Your task to perform on an android device: stop showing notifications on the lock screen Image 0: 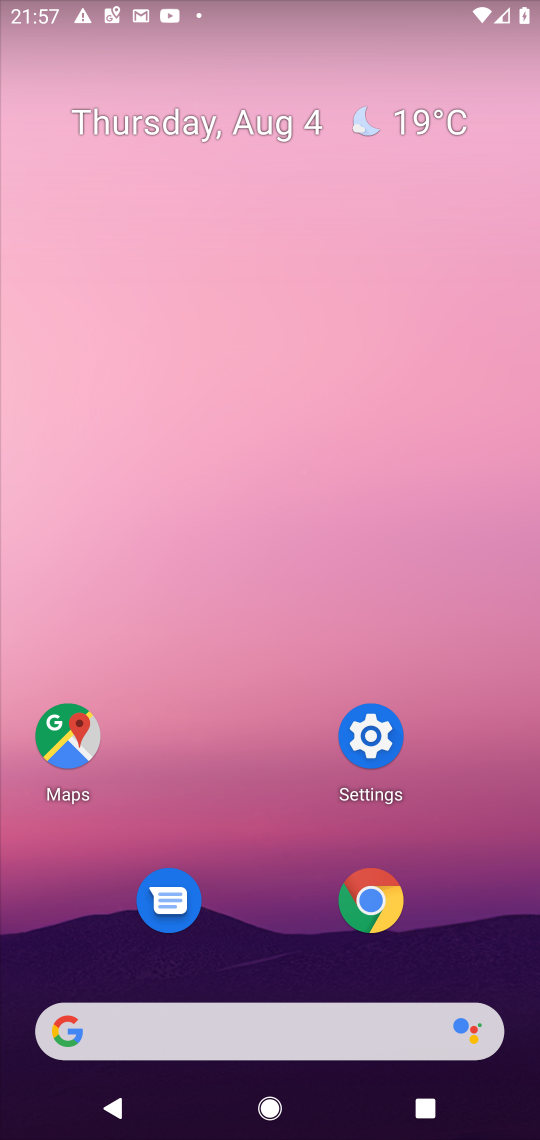
Step 0: press home button
Your task to perform on an android device: stop showing notifications on the lock screen Image 1: 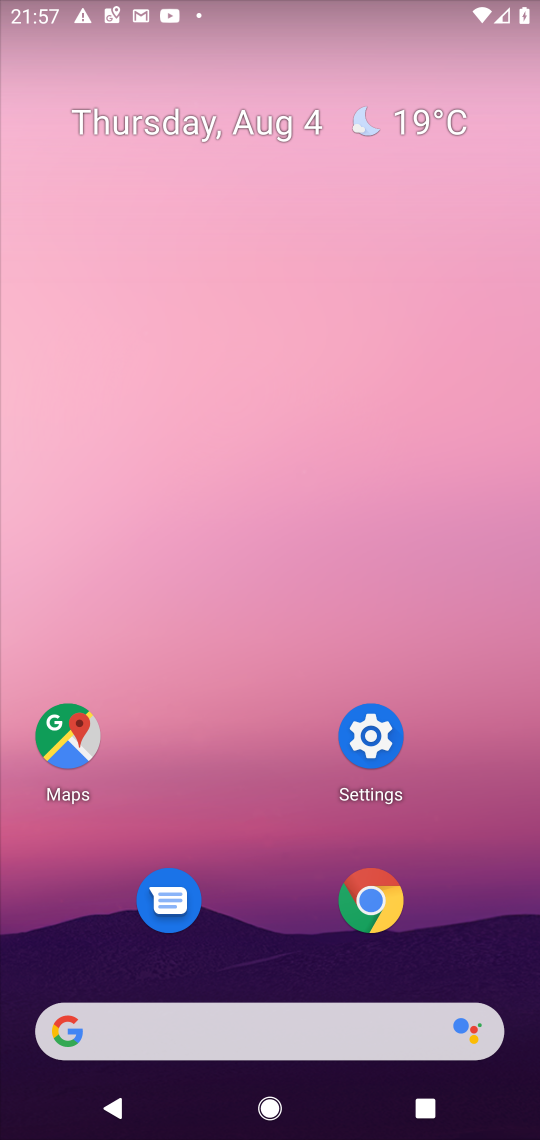
Step 1: click (369, 736)
Your task to perform on an android device: stop showing notifications on the lock screen Image 2: 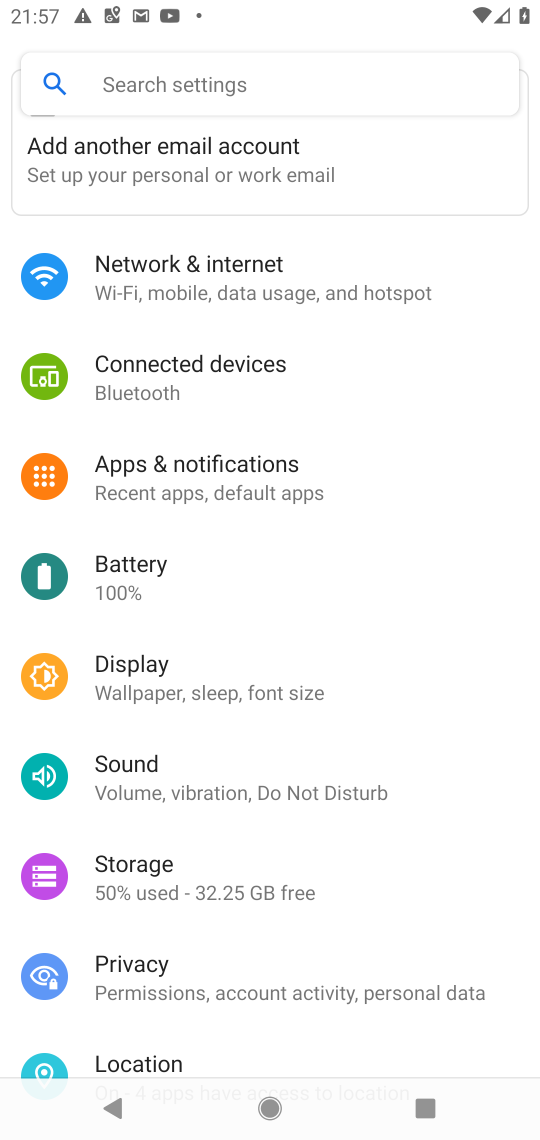
Step 2: click (238, 461)
Your task to perform on an android device: stop showing notifications on the lock screen Image 3: 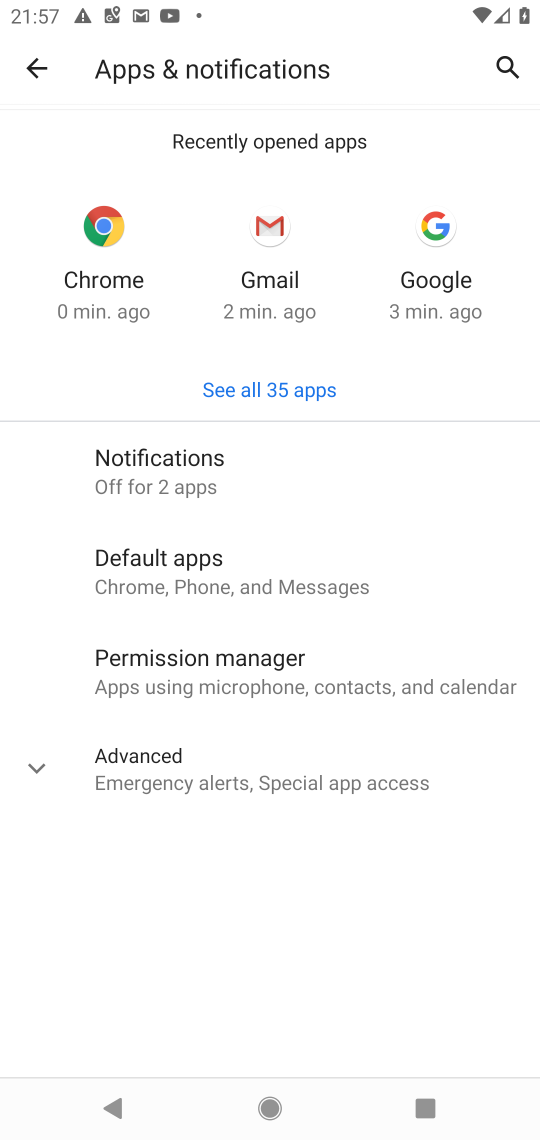
Step 3: click (187, 463)
Your task to perform on an android device: stop showing notifications on the lock screen Image 4: 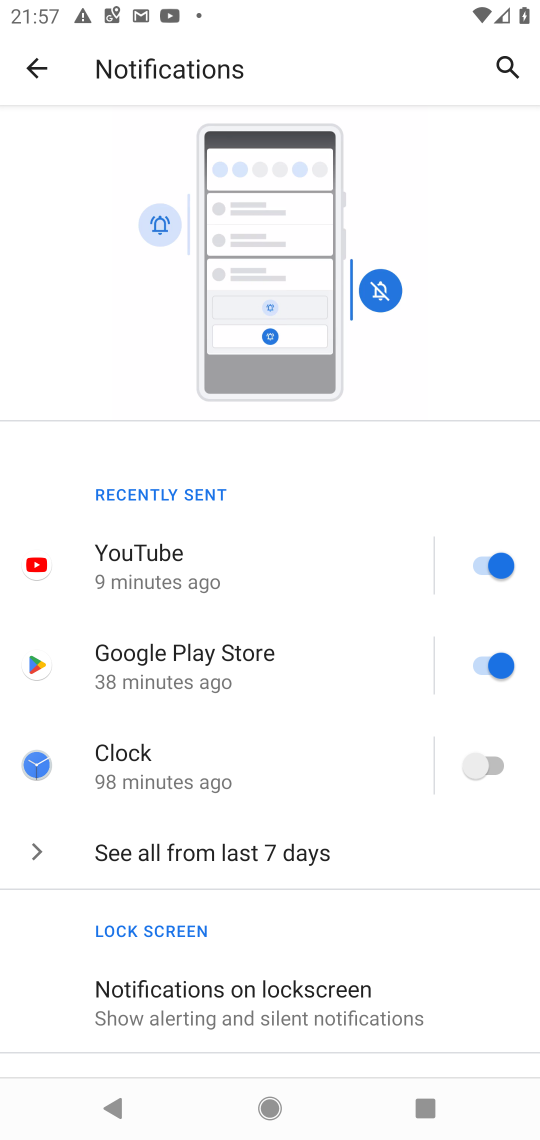
Step 4: drag from (242, 955) to (349, 206)
Your task to perform on an android device: stop showing notifications on the lock screen Image 5: 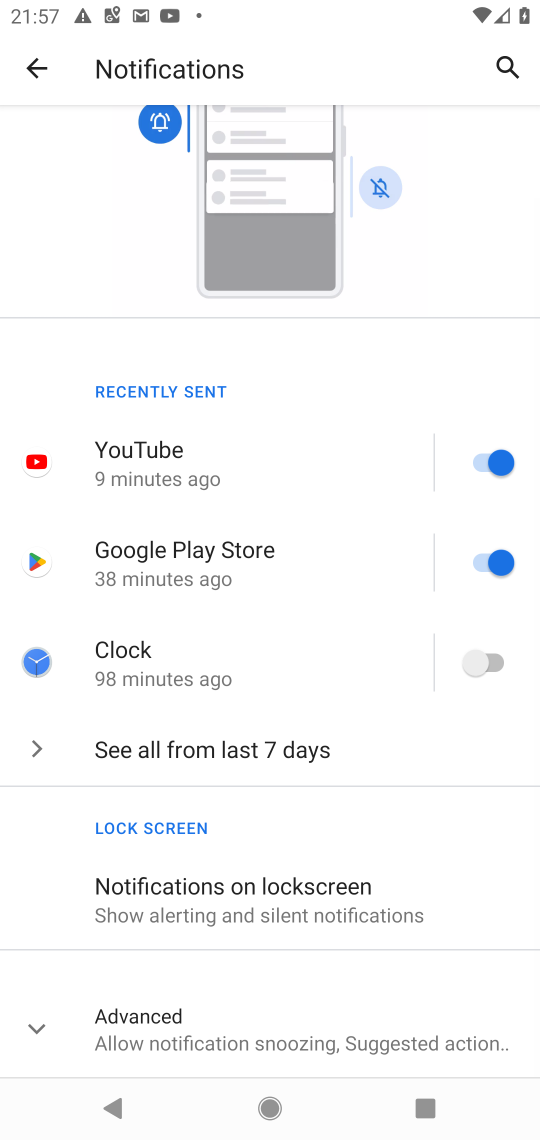
Step 5: click (232, 912)
Your task to perform on an android device: stop showing notifications on the lock screen Image 6: 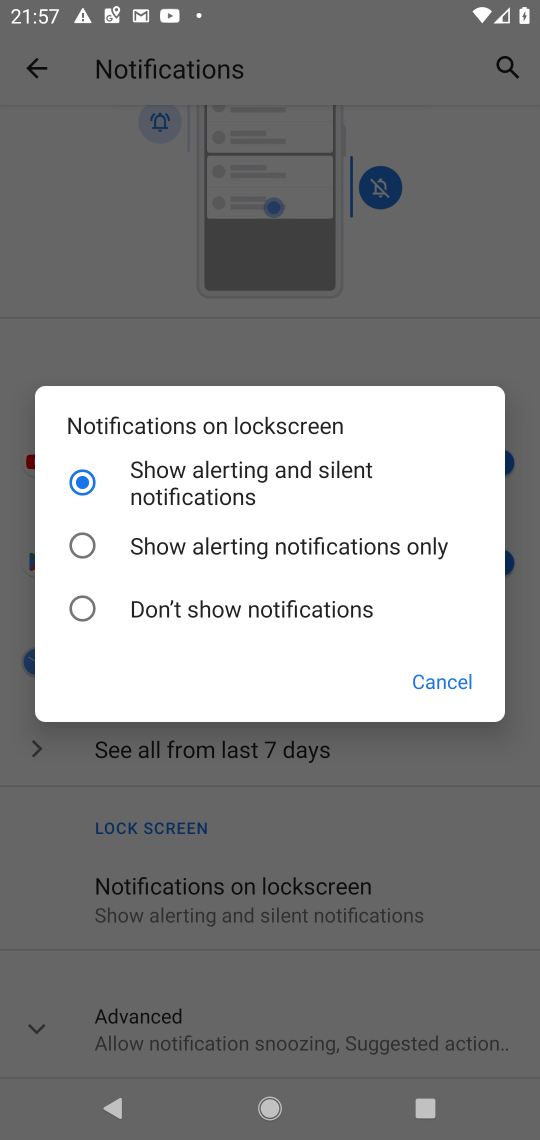
Step 6: click (85, 604)
Your task to perform on an android device: stop showing notifications on the lock screen Image 7: 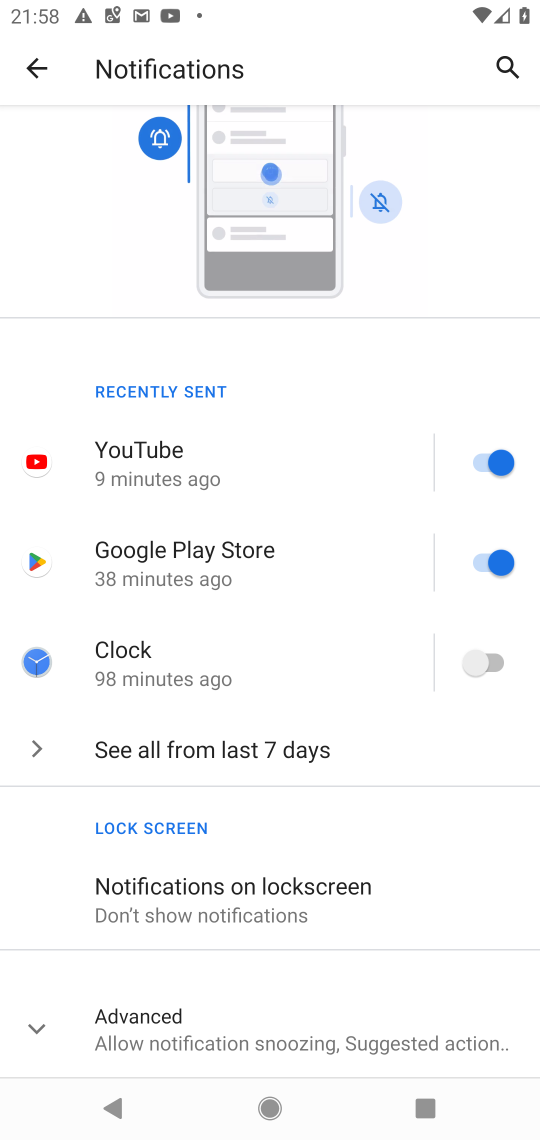
Step 7: task complete